Your task to perform on an android device: open app "Firefox Browser" Image 0: 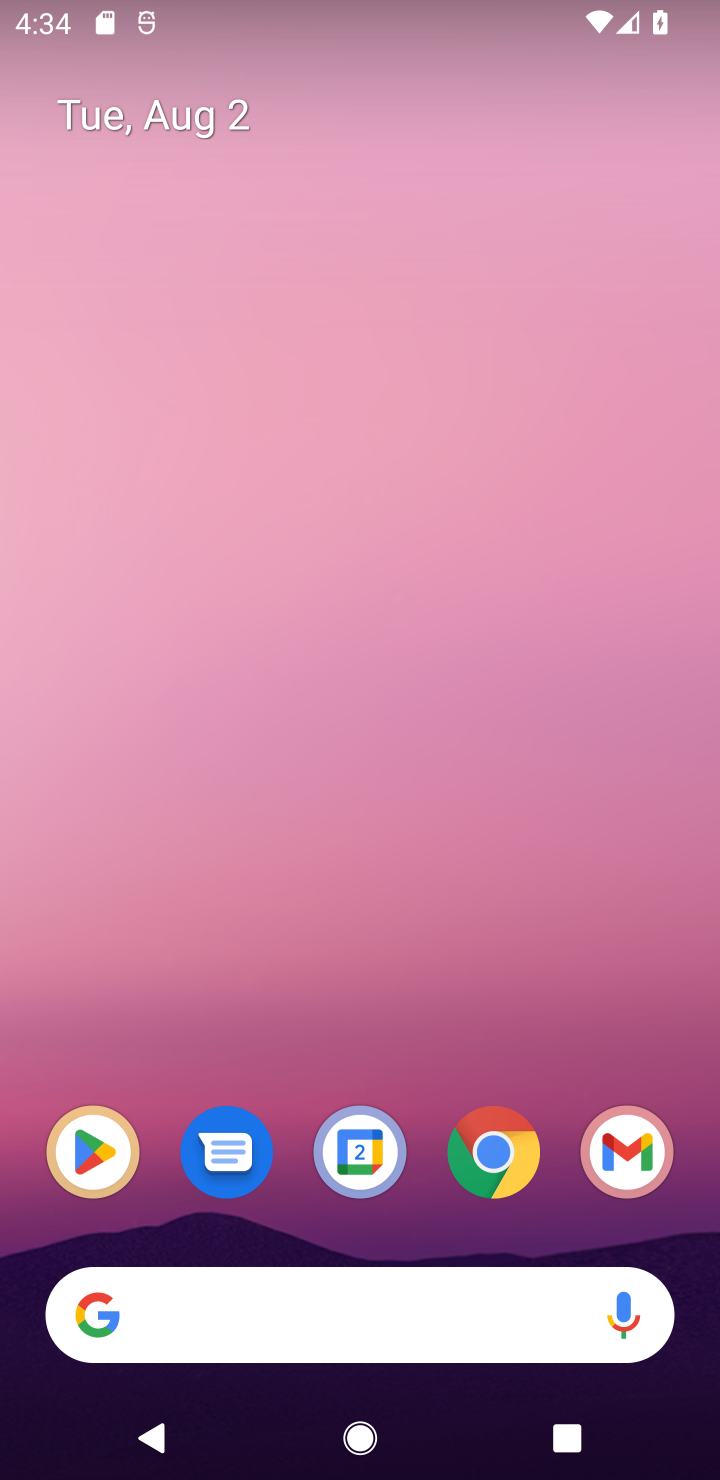
Step 0: click (89, 1142)
Your task to perform on an android device: open app "Firefox Browser" Image 1: 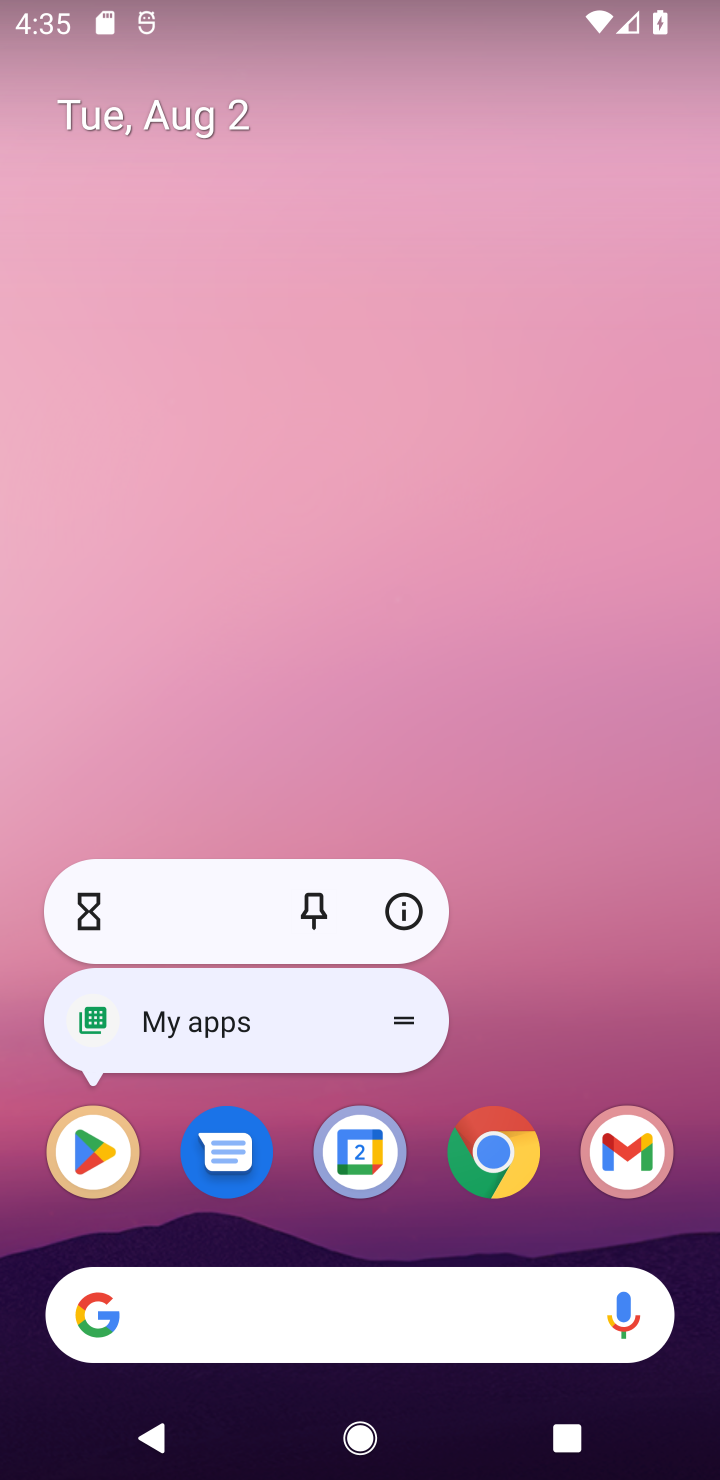
Step 1: click (101, 1161)
Your task to perform on an android device: open app "Firefox Browser" Image 2: 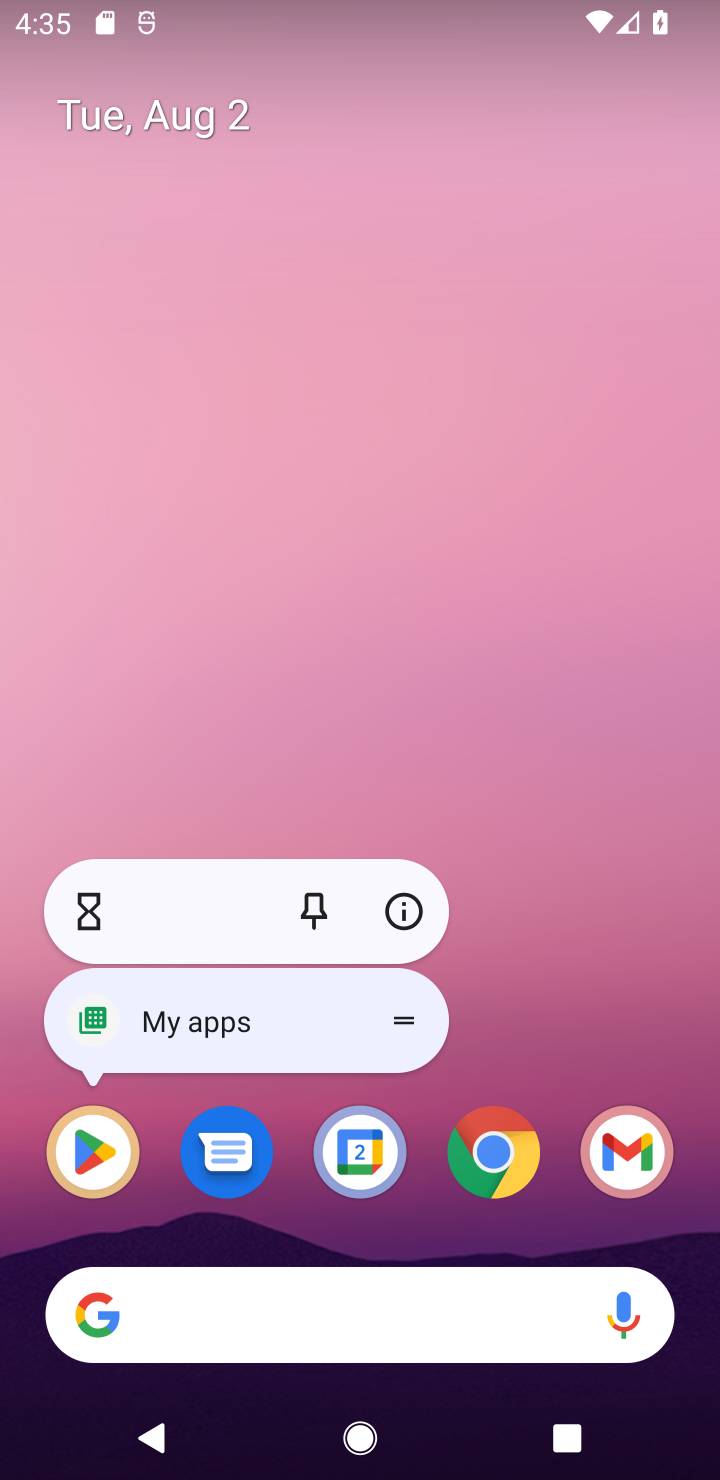
Step 2: click (101, 1161)
Your task to perform on an android device: open app "Firefox Browser" Image 3: 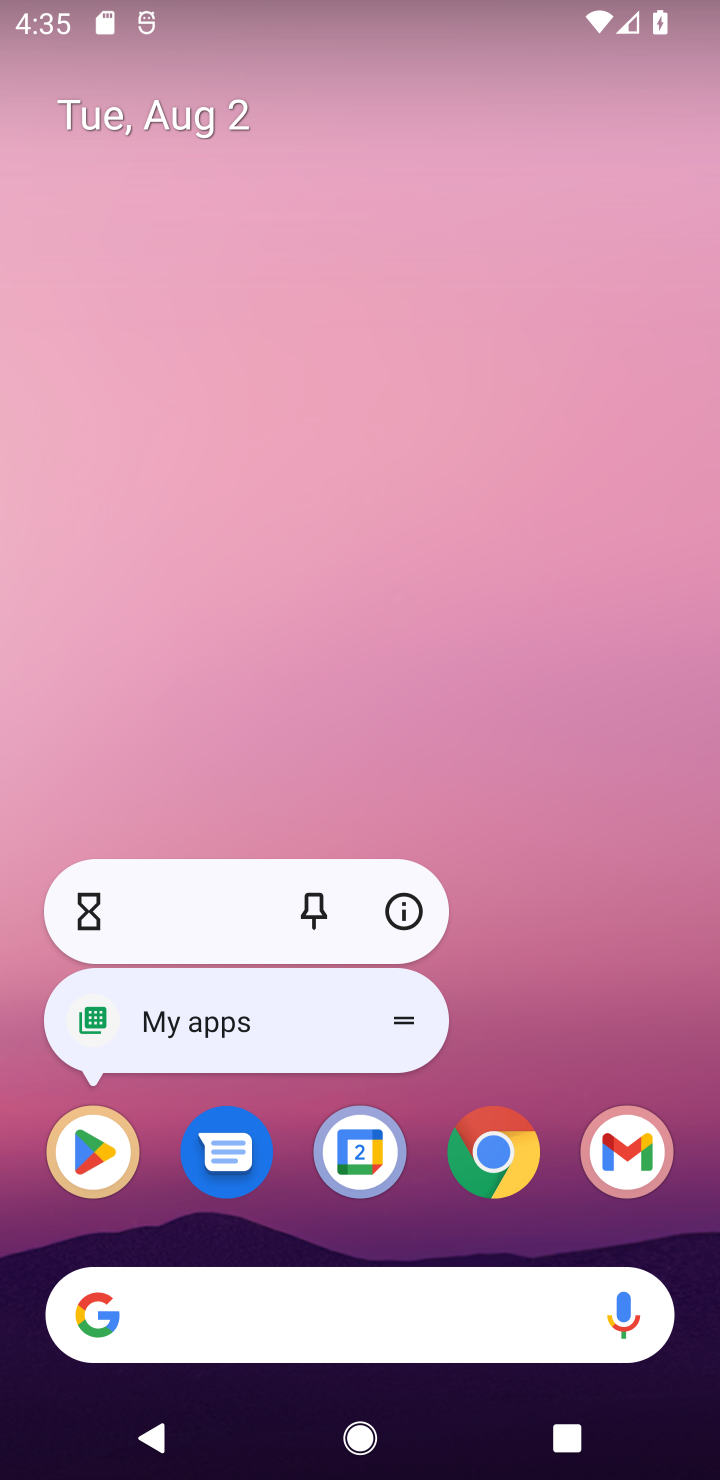
Step 3: click (101, 1136)
Your task to perform on an android device: open app "Firefox Browser" Image 4: 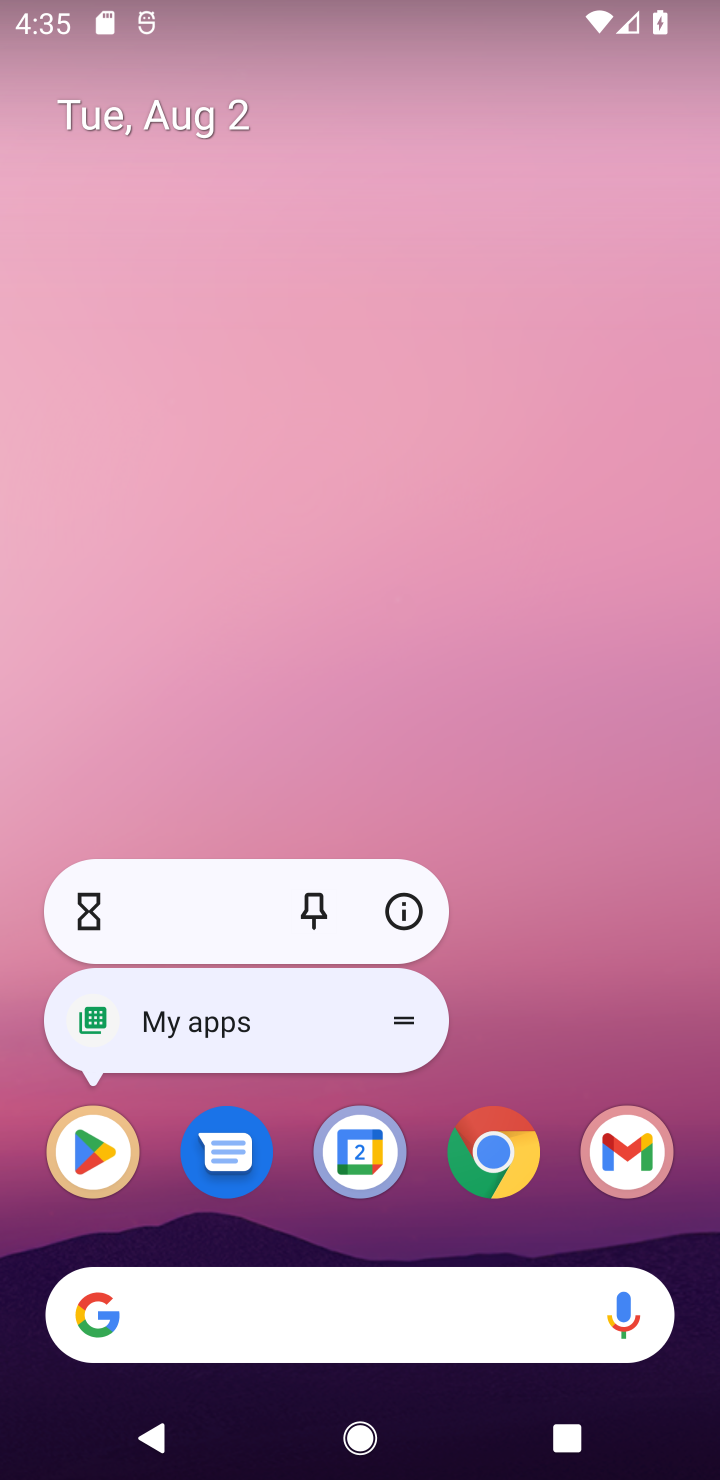
Step 4: click (101, 1136)
Your task to perform on an android device: open app "Firefox Browser" Image 5: 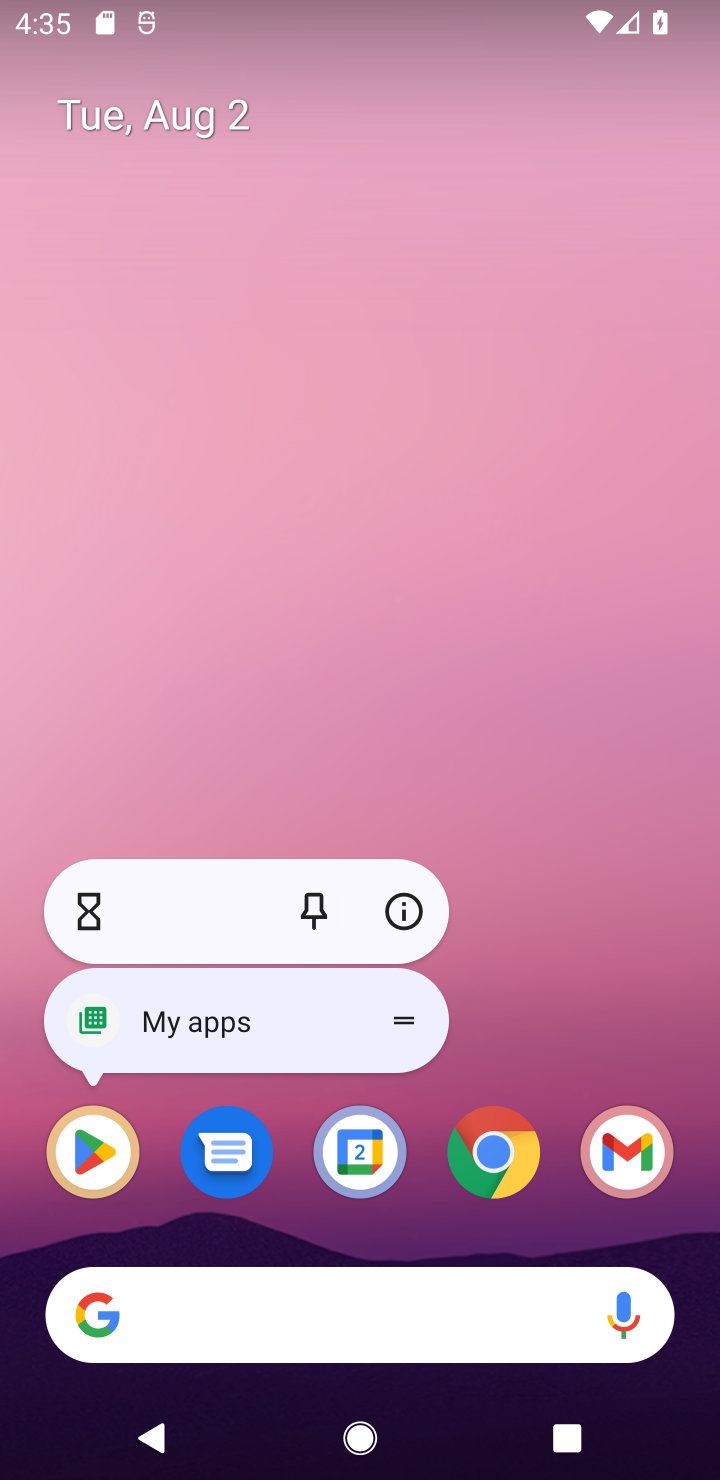
Step 5: click (94, 1153)
Your task to perform on an android device: open app "Firefox Browser" Image 6: 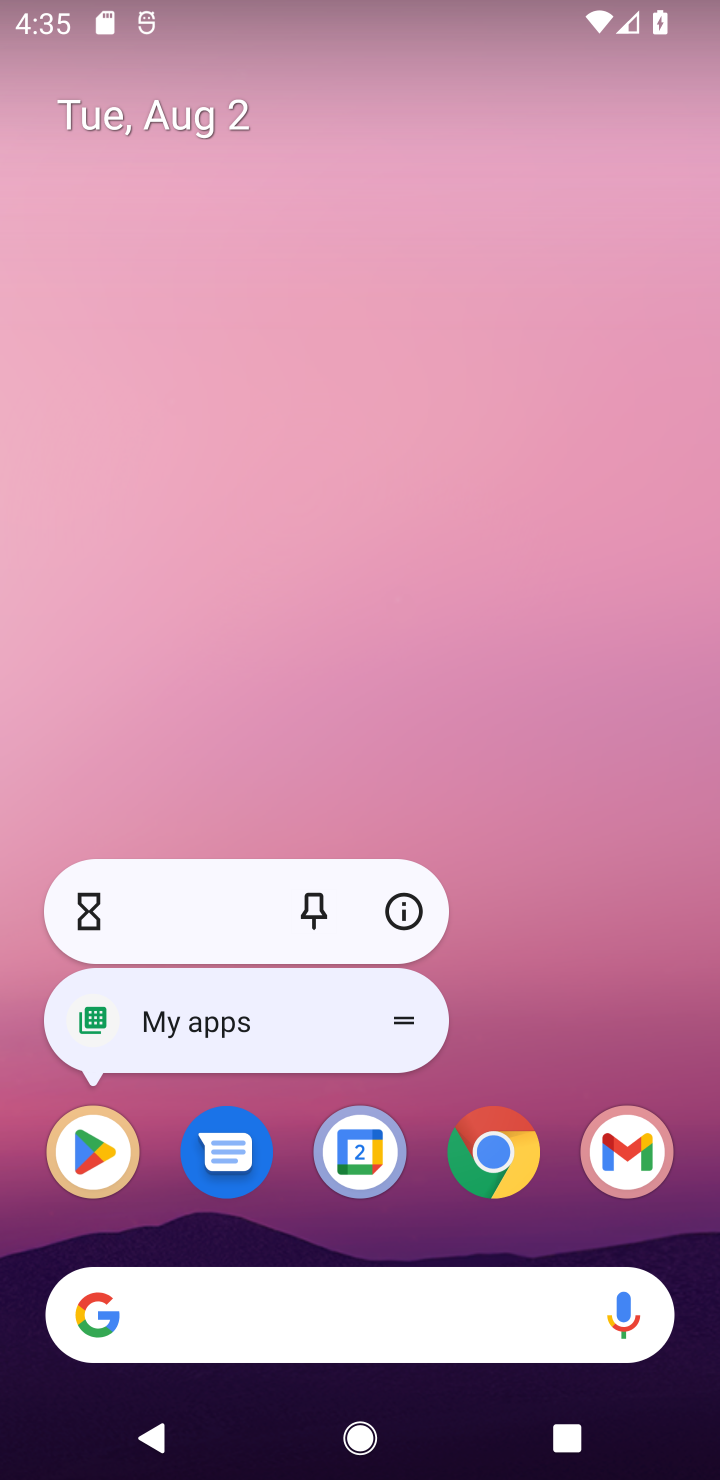
Step 6: click (94, 1185)
Your task to perform on an android device: open app "Firefox Browser" Image 7: 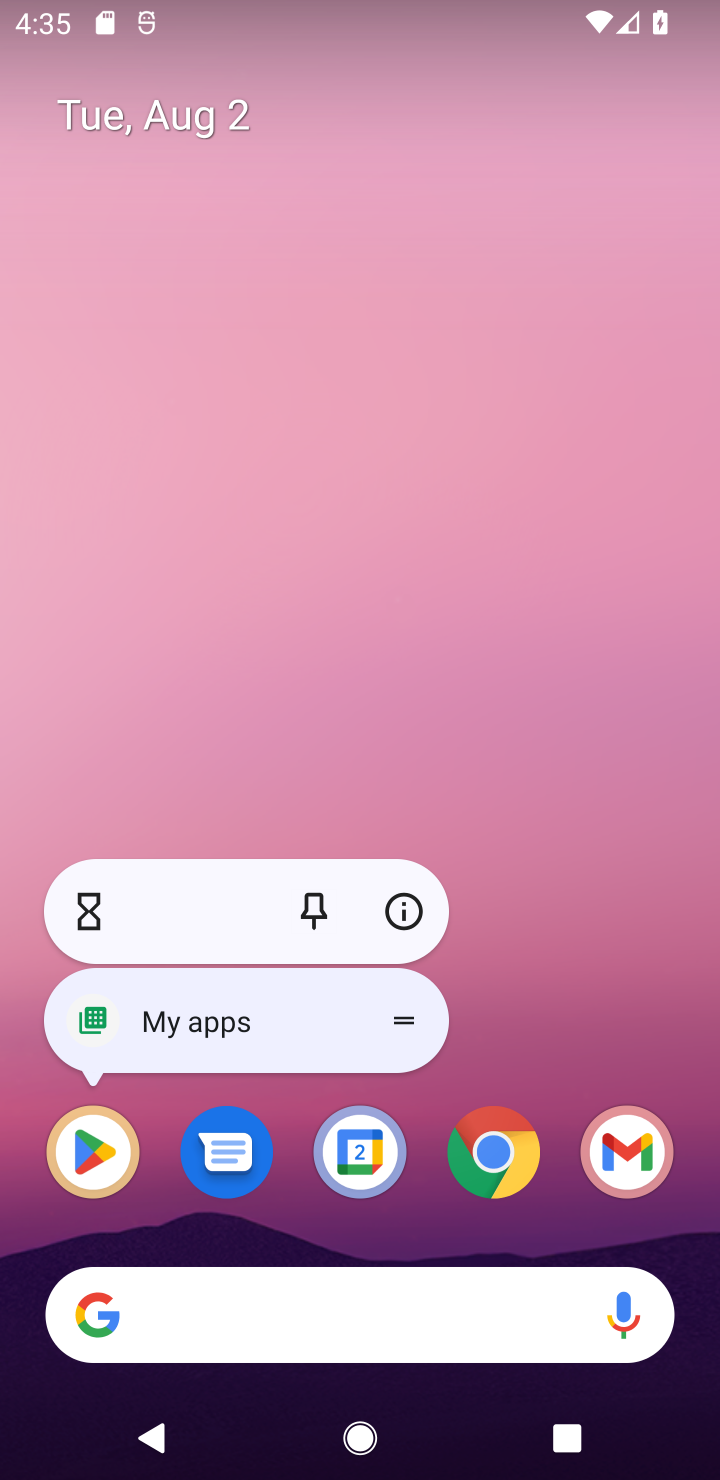
Step 7: click (94, 1185)
Your task to perform on an android device: open app "Firefox Browser" Image 8: 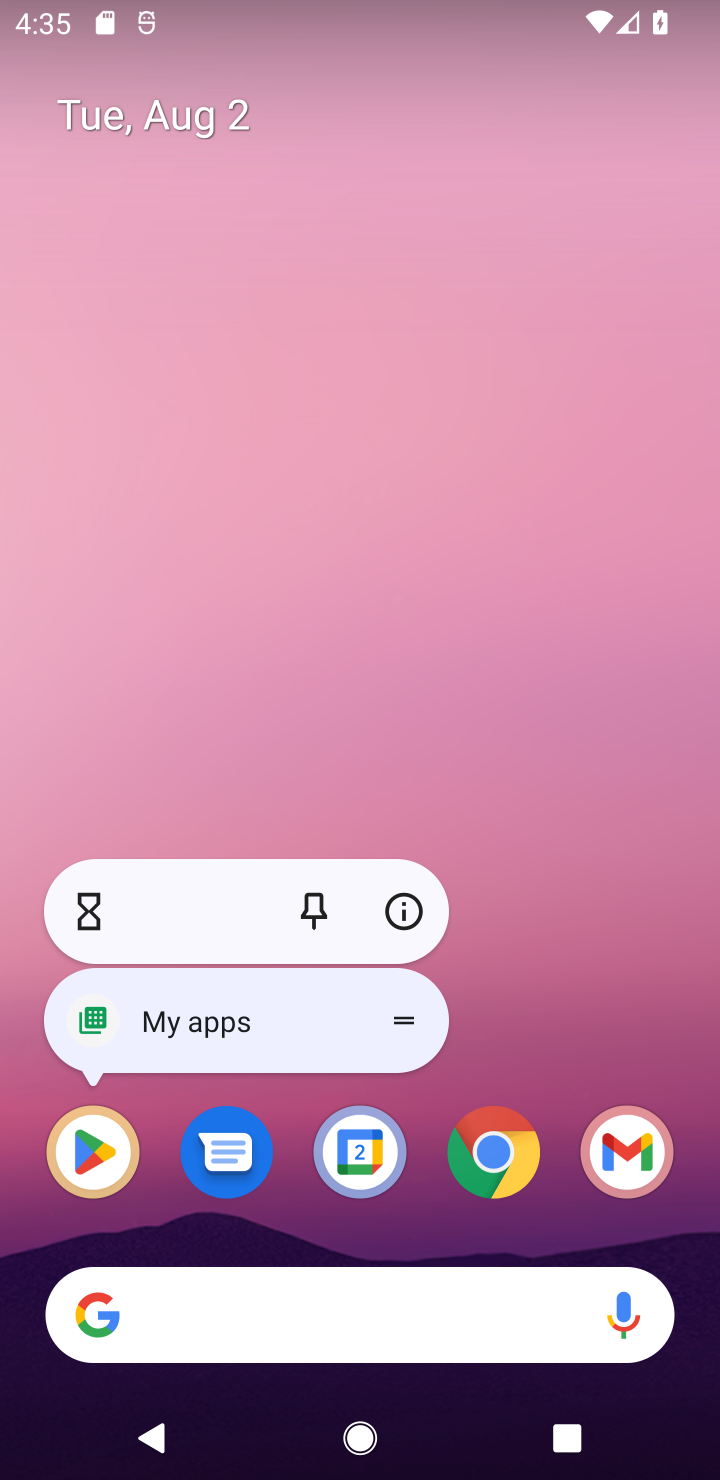
Step 8: click (103, 1145)
Your task to perform on an android device: open app "Firefox Browser" Image 9: 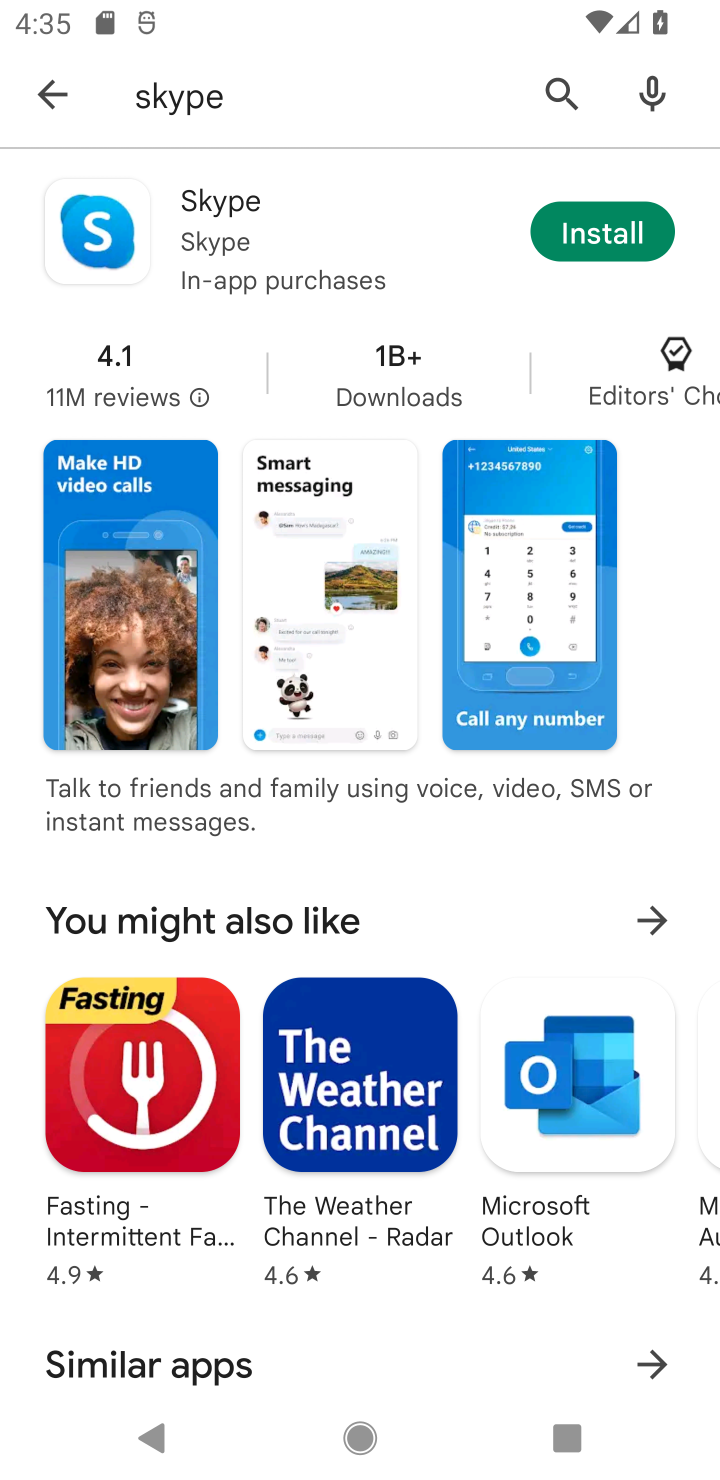
Step 9: click (545, 85)
Your task to perform on an android device: open app "Firefox Browser" Image 10: 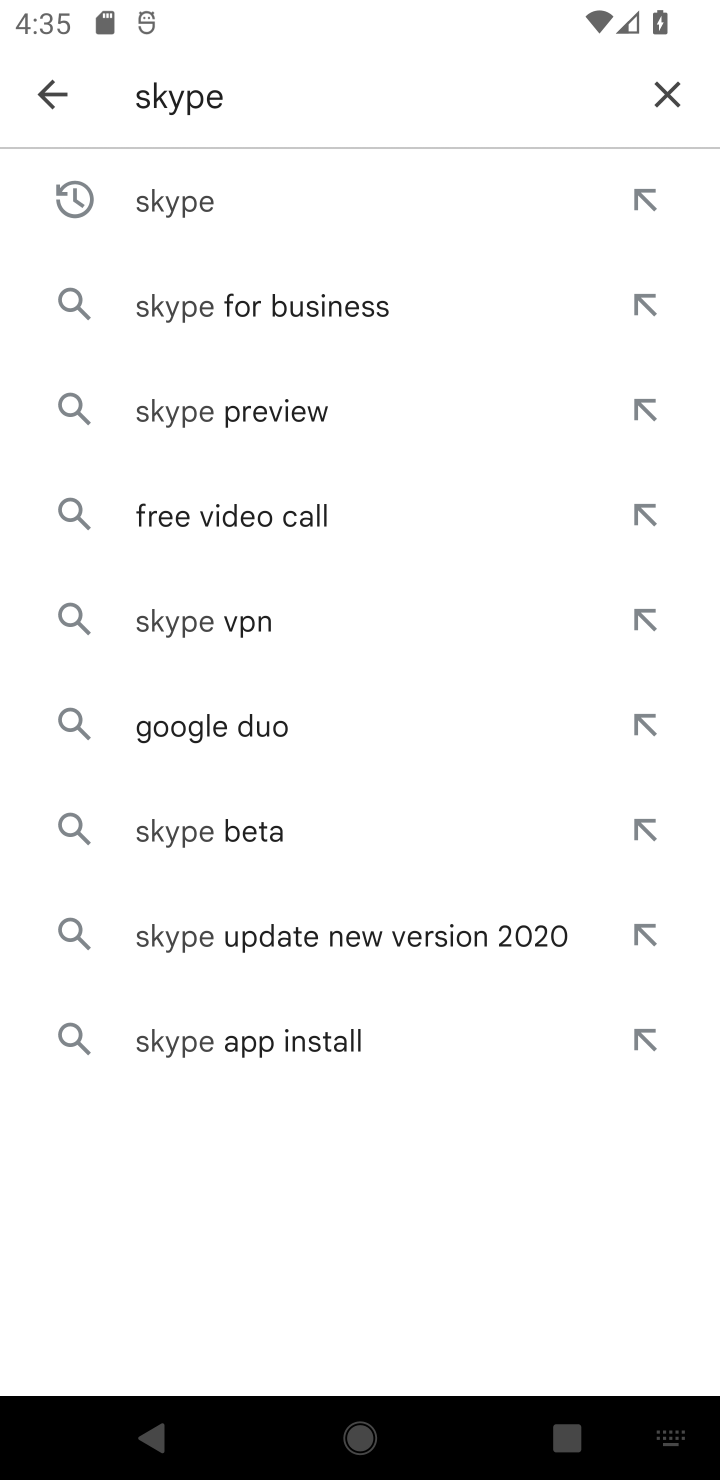
Step 10: click (661, 95)
Your task to perform on an android device: open app "Firefox Browser" Image 11: 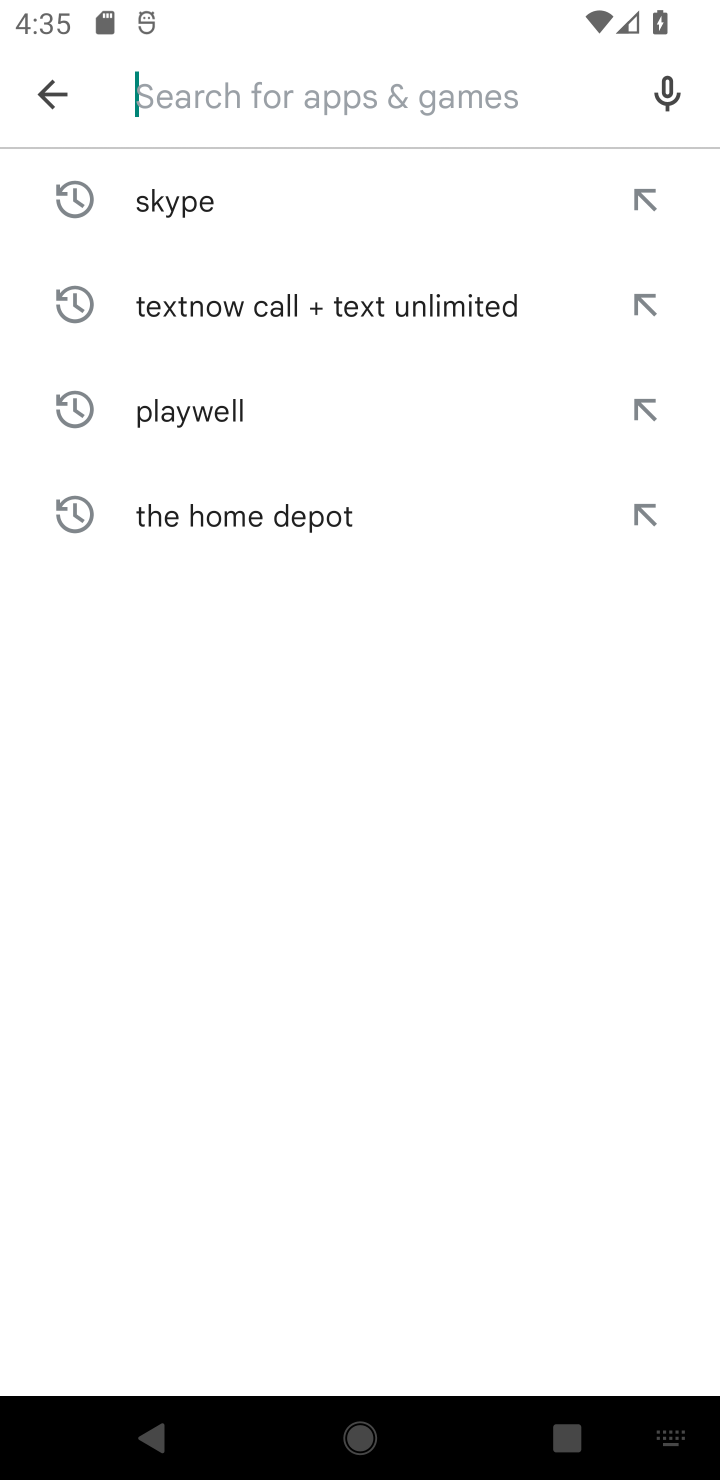
Step 11: type "Firefox Browse"
Your task to perform on an android device: open app "Firefox Browser" Image 12: 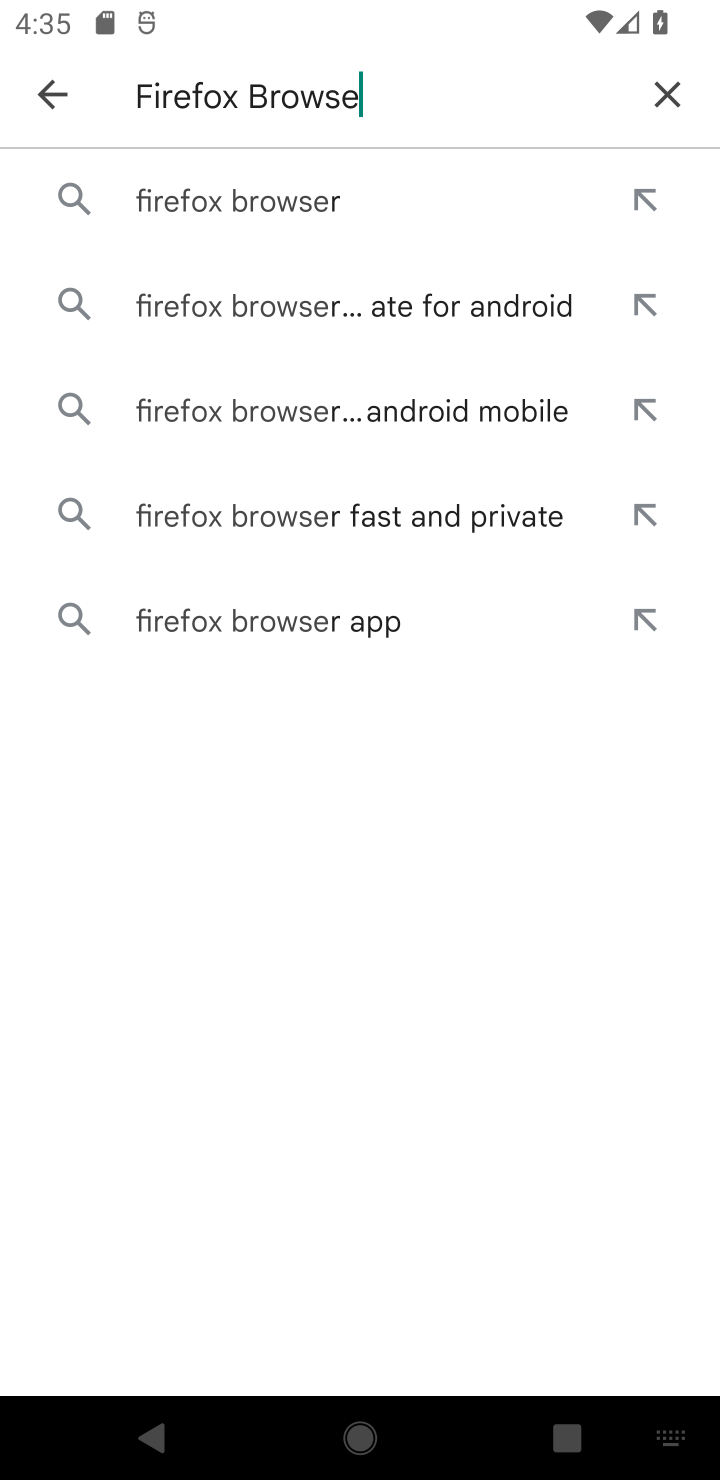
Step 12: click (359, 206)
Your task to perform on an android device: open app "Firefox Browser" Image 13: 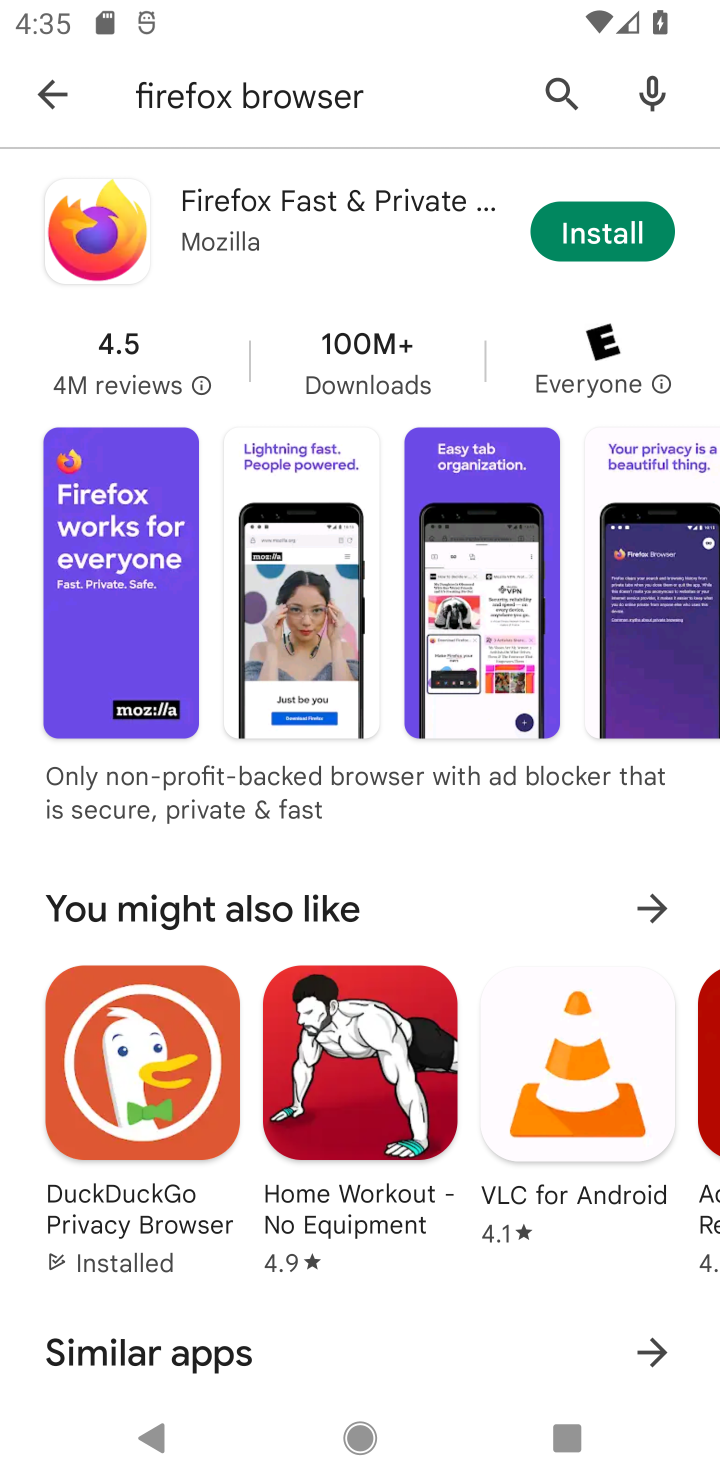
Step 13: task complete